Your task to perform on an android device: Check the news Image 0: 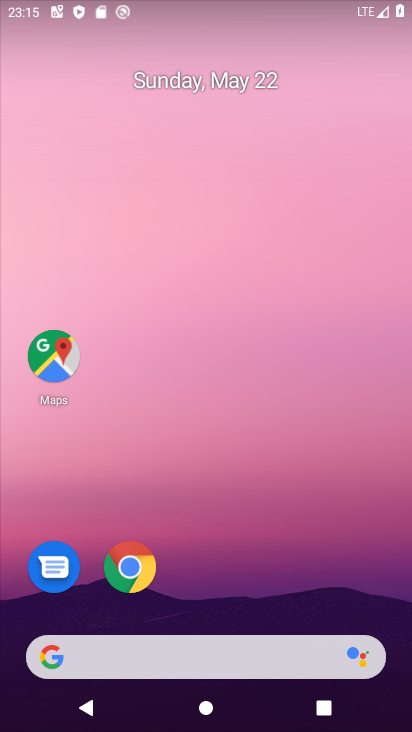
Step 0: drag from (304, 183) to (311, 36)
Your task to perform on an android device: Check the news Image 1: 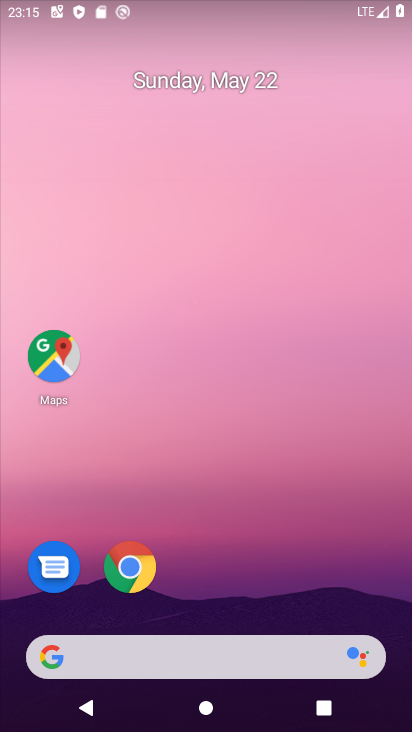
Step 1: drag from (266, 579) to (262, 42)
Your task to perform on an android device: Check the news Image 2: 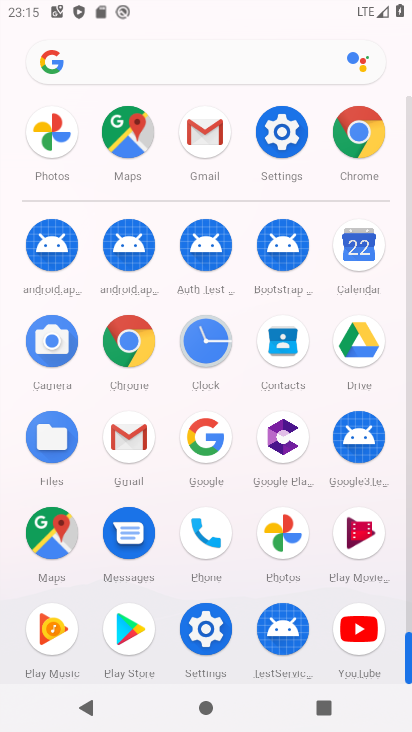
Step 2: drag from (7, 559) to (20, 307)
Your task to perform on an android device: Check the news Image 3: 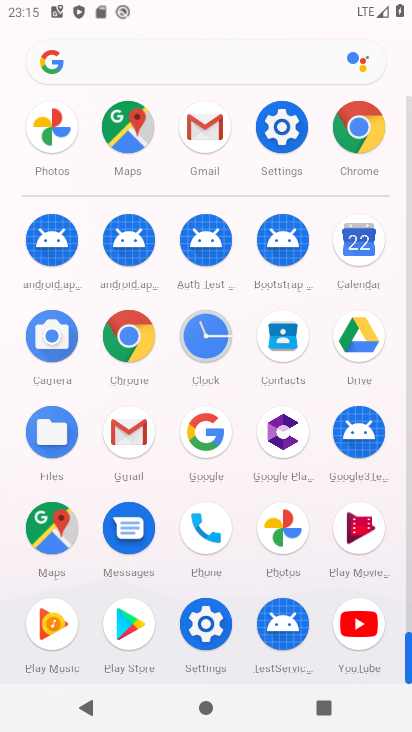
Step 3: click (127, 327)
Your task to perform on an android device: Check the news Image 4: 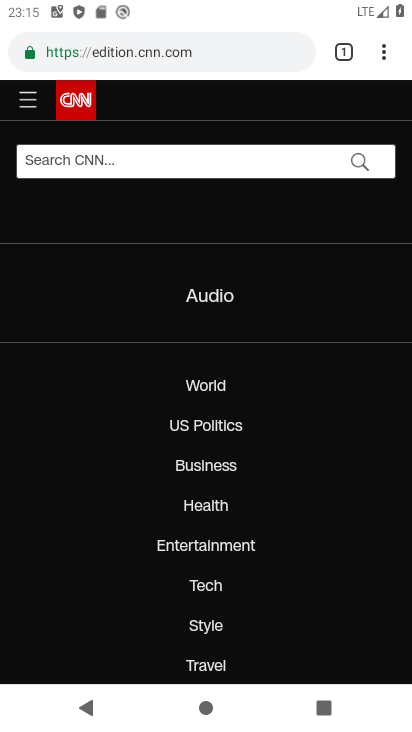
Step 4: click (203, 43)
Your task to perform on an android device: Check the news Image 5: 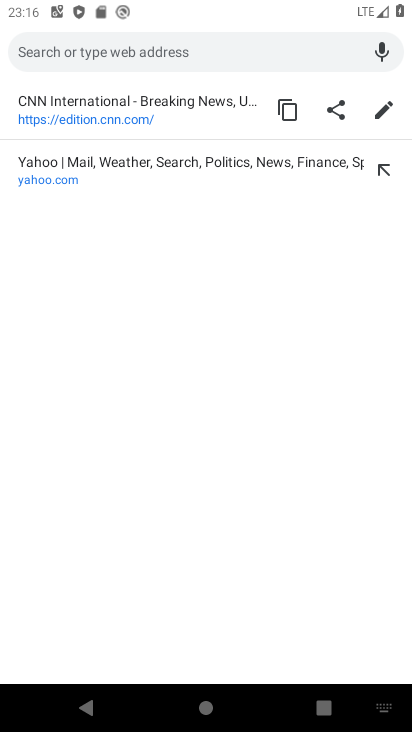
Step 5: type "Check the news"
Your task to perform on an android device: Check the news Image 6: 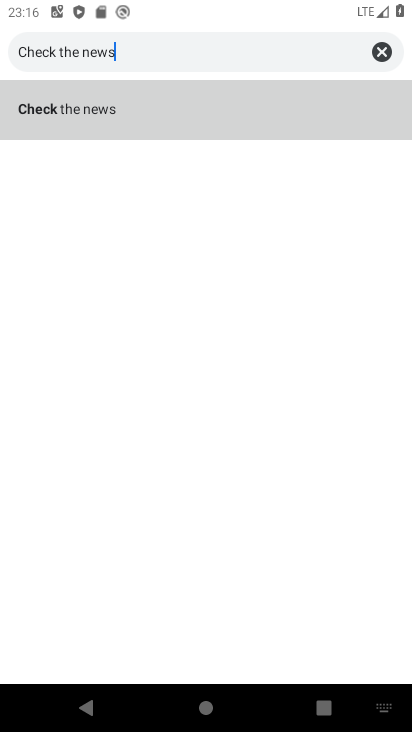
Step 6: type ""
Your task to perform on an android device: Check the news Image 7: 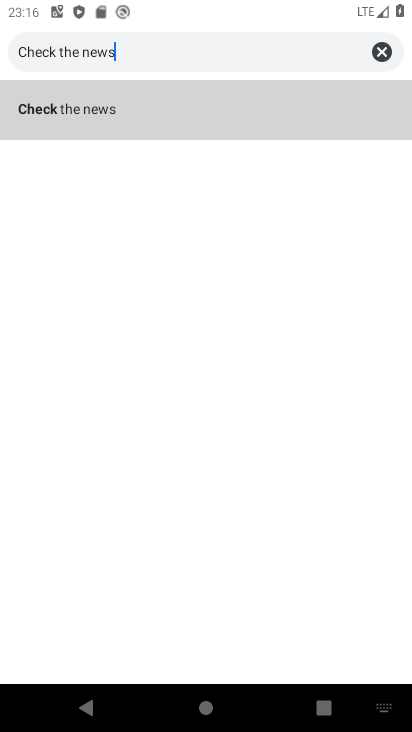
Step 7: click (72, 116)
Your task to perform on an android device: Check the news Image 8: 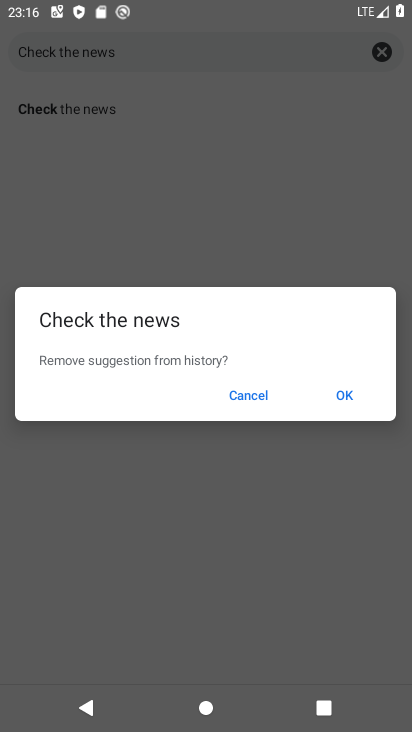
Step 8: click (352, 389)
Your task to perform on an android device: Check the news Image 9: 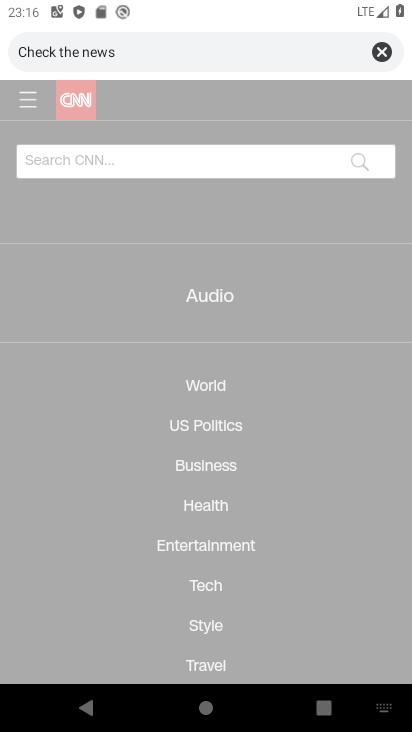
Step 9: click (161, 39)
Your task to perform on an android device: Check the news Image 10: 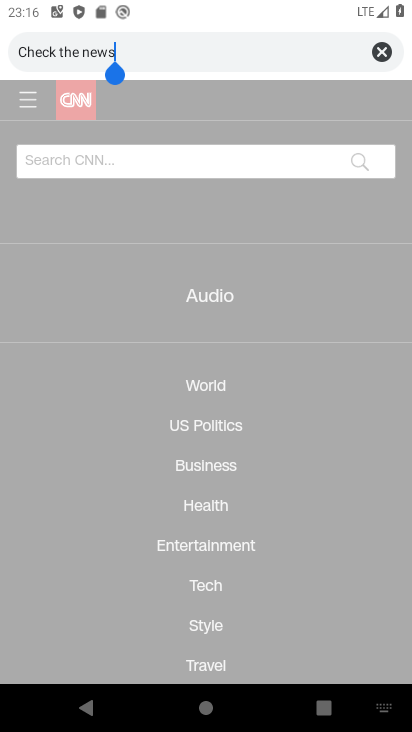
Step 10: click (140, 100)
Your task to perform on an android device: Check the news Image 11: 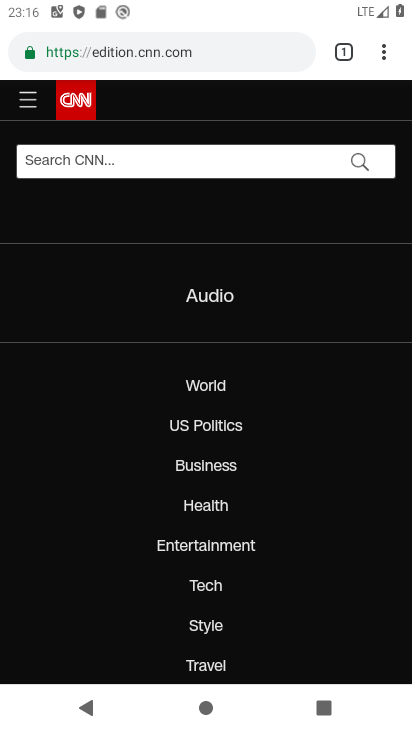
Step 11: click (175, 16)
Your task to perform on an android device: Check the news Image 12: 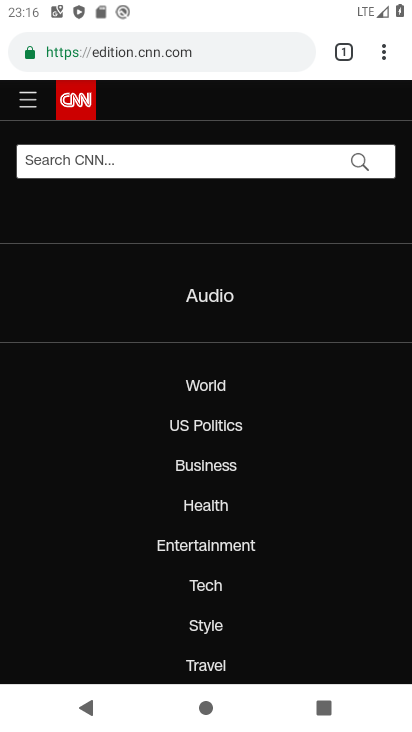
Step 12: click (196, 48)
Your task to perform on an android device: Check the news Image 13: 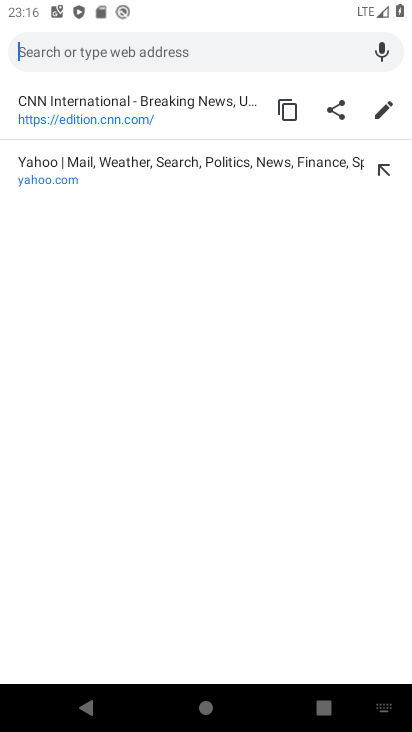
Step 13: type "Check the news"
Your task to perform on an android device: Check the news Image 14: 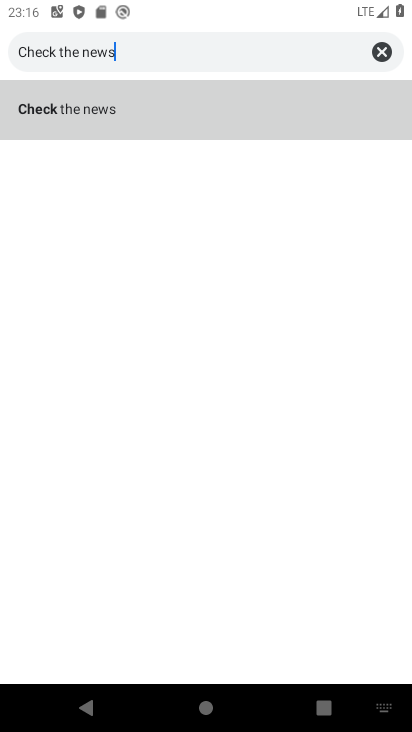
Step 14: click (92, 105)
Your task to perform on an android device: Check the news Image 15: 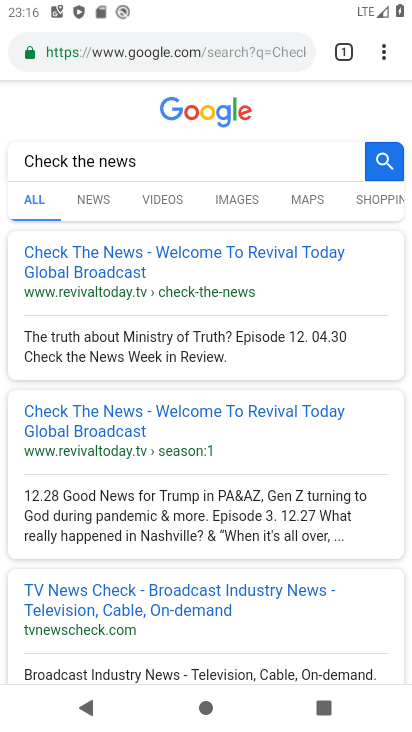
Step 15: click (90, 203)
Your task to perform on an android device: Check the news Image 16: 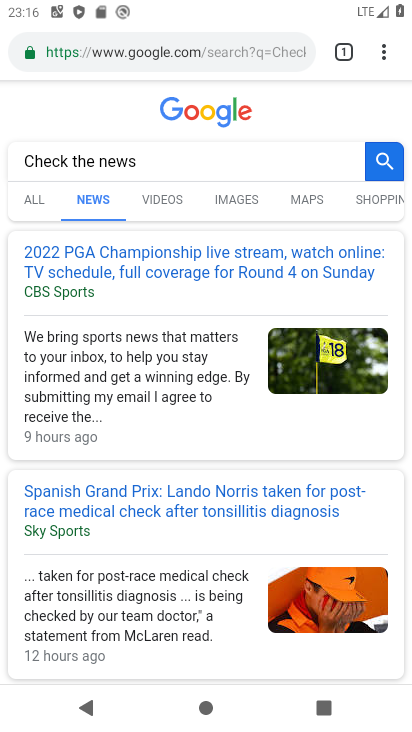
Step 16: task complete